Your task to perform on an android device: install app "Firefox Browser" Image 0: 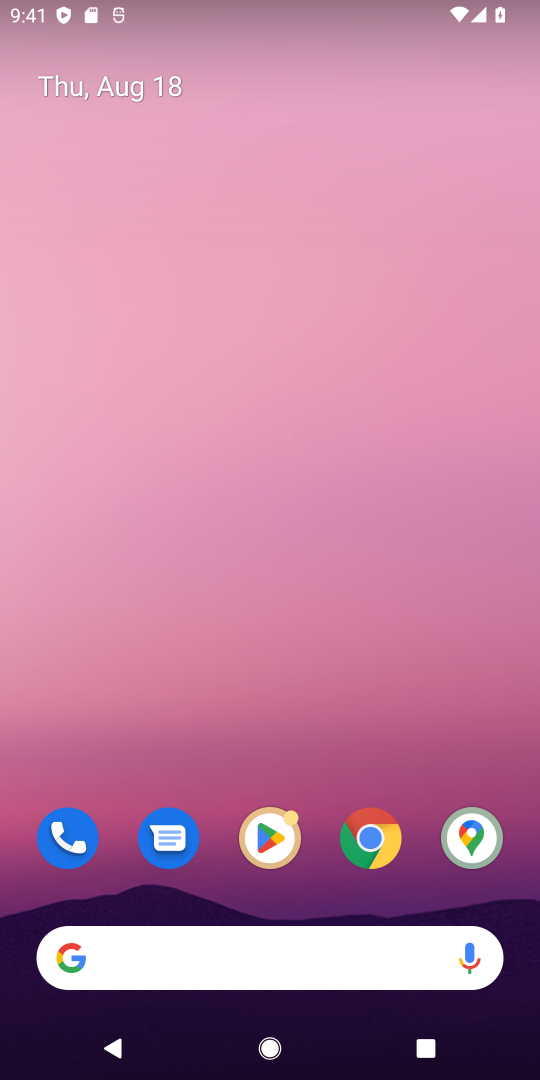
Step 0: click (266, 843)
Your task to perform on an android device: install app "Firefox Browser" Image 1: 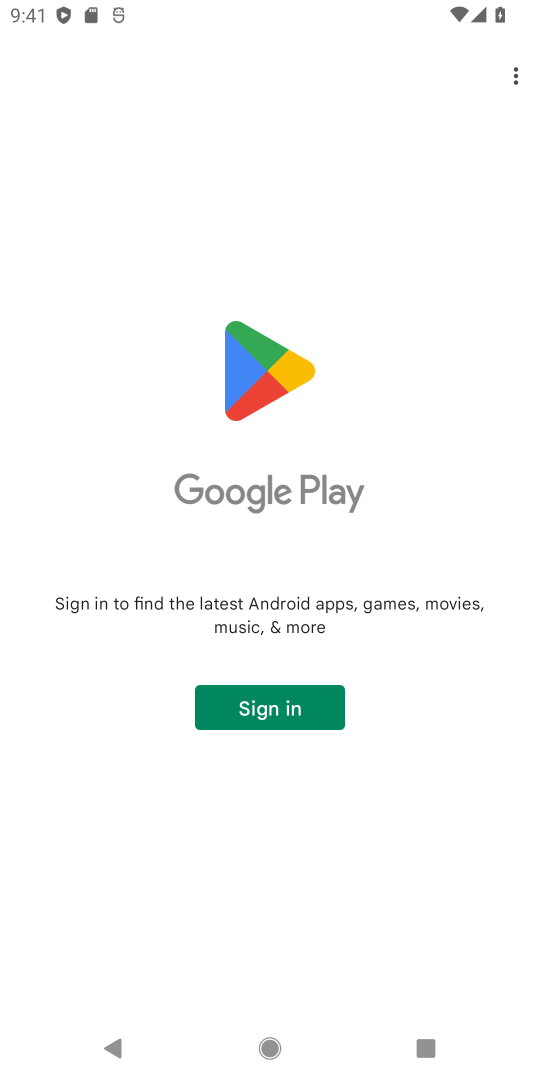
Step 1: task complete